Your task to perform on an android device: What's the weather today? Image 0: 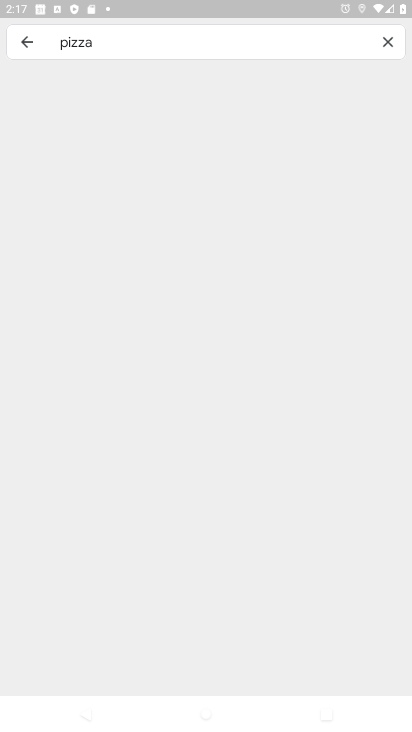
Step 0: press home button
Your task to perform on an android device: What's the weather today? Image 1: 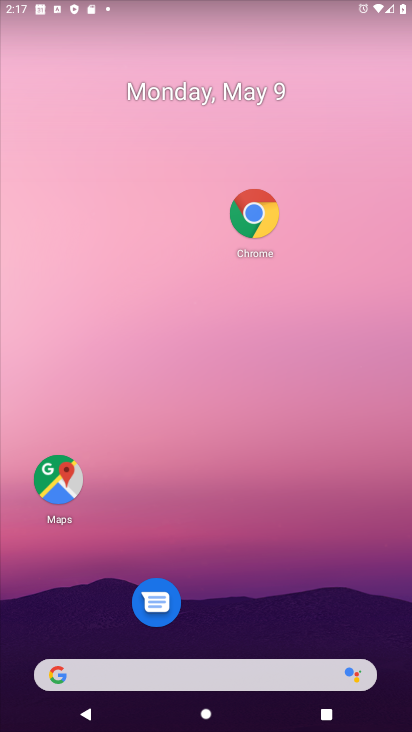
Step 1: drag from (278, 565) to (305, 71)
Your task to perform on an android device: What's the weather today? Image 2: 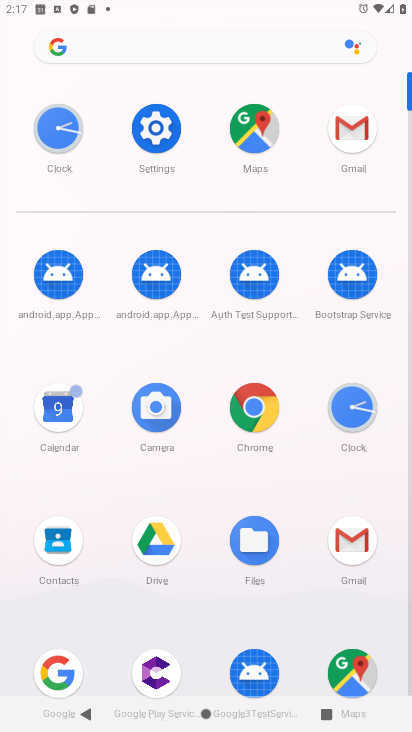
Step 2: click (224, 54)
Your task to perform on an android device: What's the weather today? Image 3: 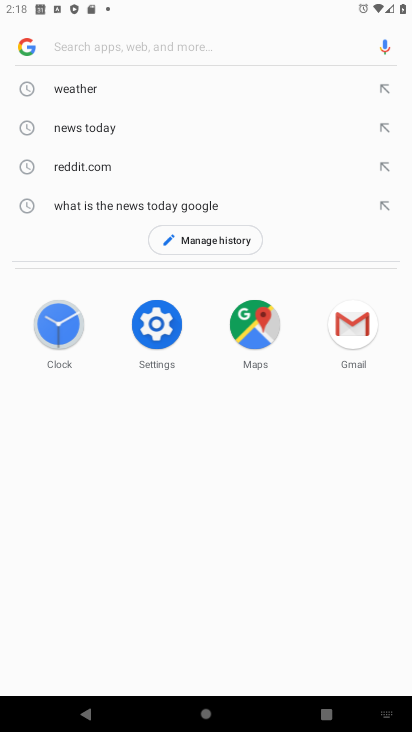
Step 3: click (196, 77)
Your task to perform on an android device: What's the weather today? Image 4: 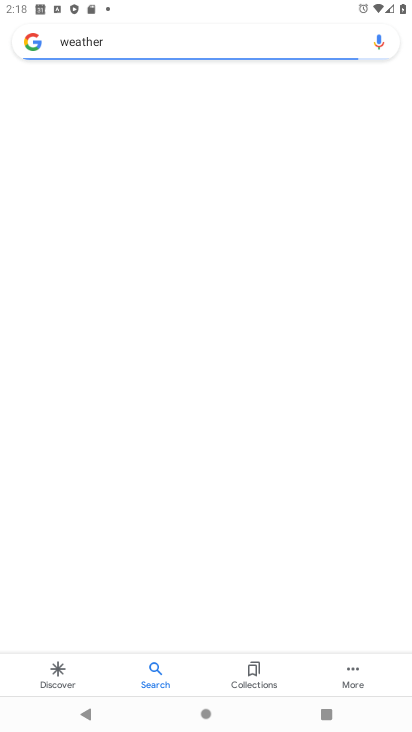
Step 4: task complete